Your task to perform on an android device: turn on improve location accuracy Image 0: 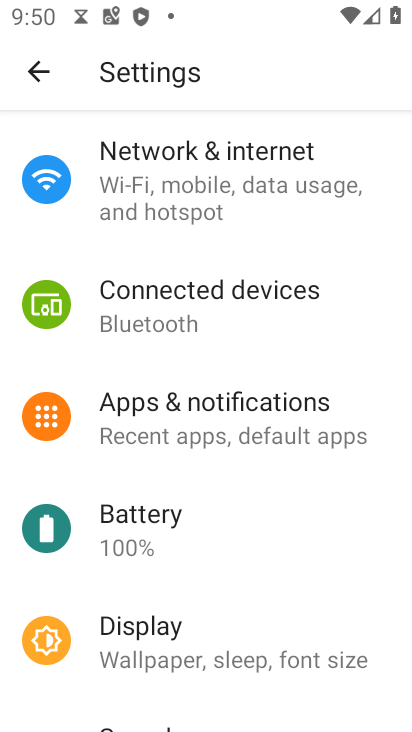
Step 0: drag from (257, 554) to (262, 220)
Your task to perform on an android device: turn on improve location accuracy Image 1: 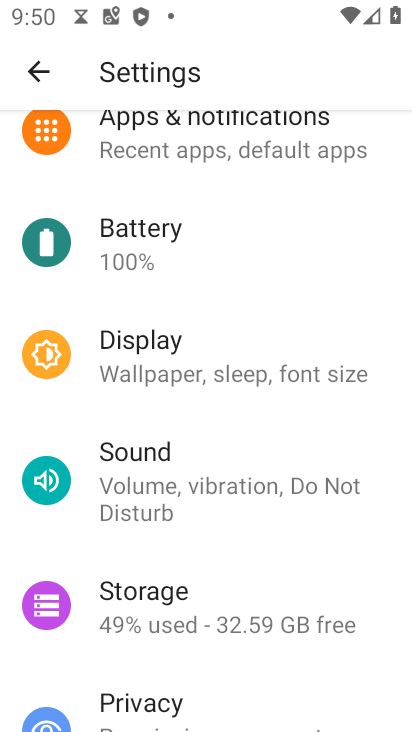
Step 1: drag from (205, 593) to (186, 243)
Your task to perform on an android device: turn on improve location accuracy Image 2: 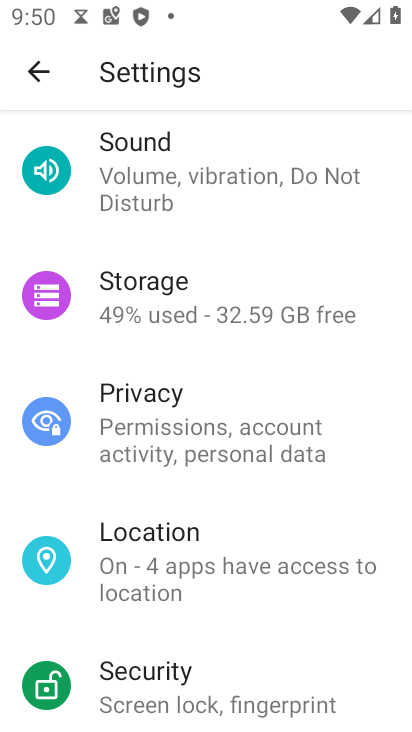
Step 2: click (189, 543)
Your task to perform on an android device: turn on improve location accuracy Image 3: 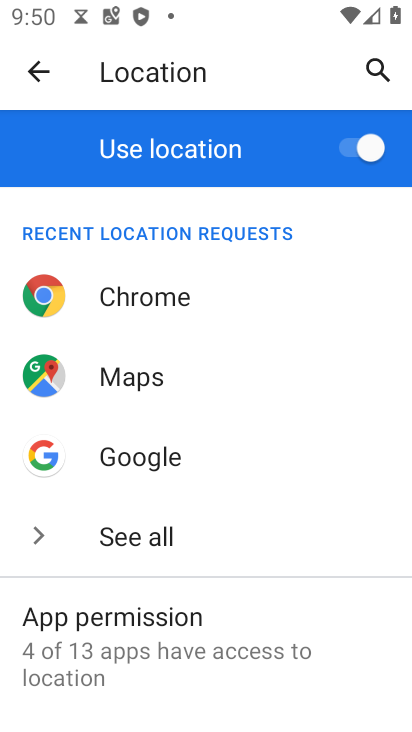
Step 3: drag from (204, 473) to (214, 367)
Your task to perform on an android device: turn on improve location accuracy Image 4: 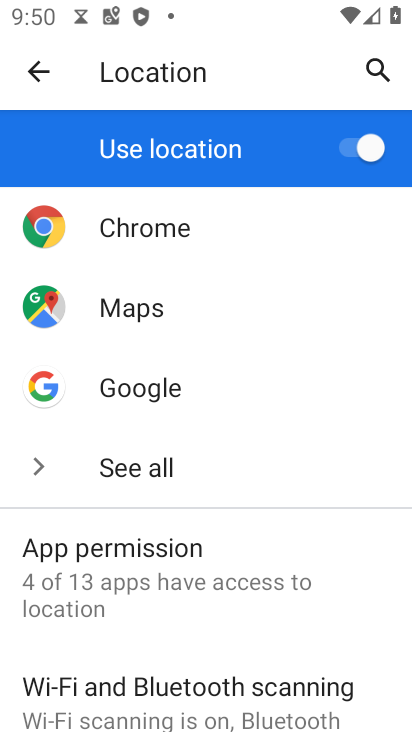
Step 4: drag from (223, 687) to (229, 442)
Your task to perform on an android device: turn on improve location accuracy Image 5: 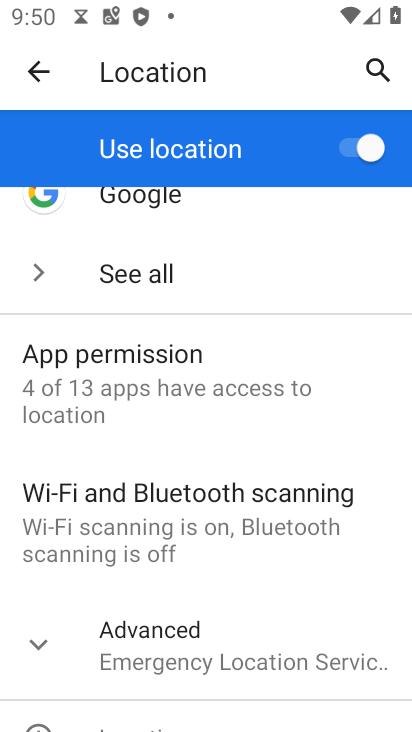
Step 5: click (191, 649)
Your task to perform on an android device: turn on improve location accuracy Image 6: 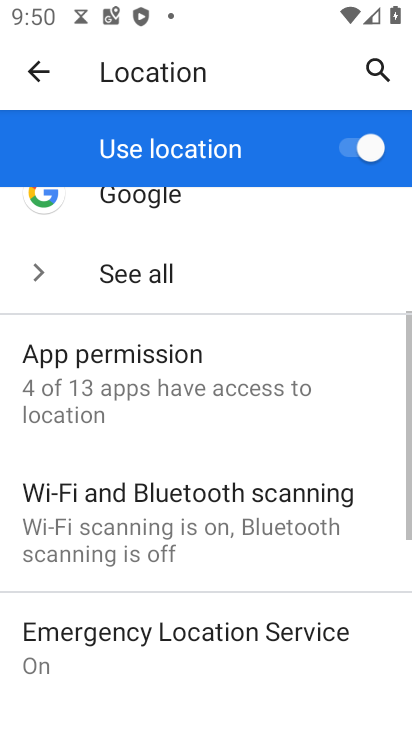
Step 6: drag from (234, 618) to (238, 361)
Your task to perform on an android device: turn on improve location accuracy Image 7: 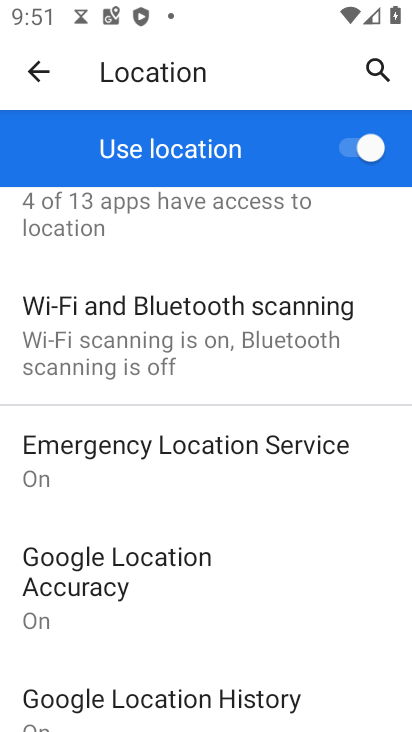
Step 7: click (87, 574)
Your task to perform on an android device: turn on improve location accuracy Image 8: 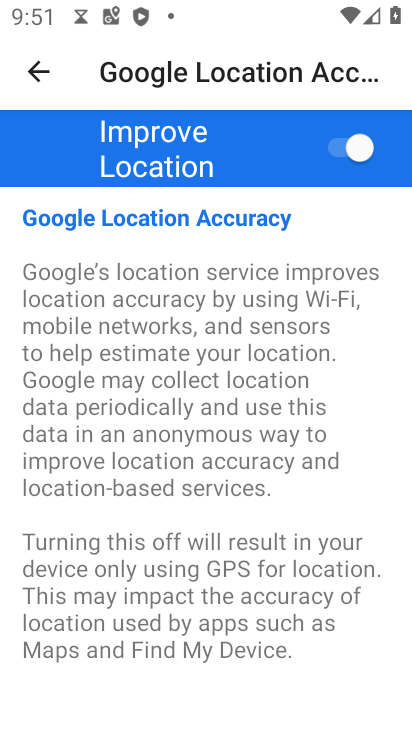
Step 8: task complete